Your task to perform on an android device: Check the news Image 0: 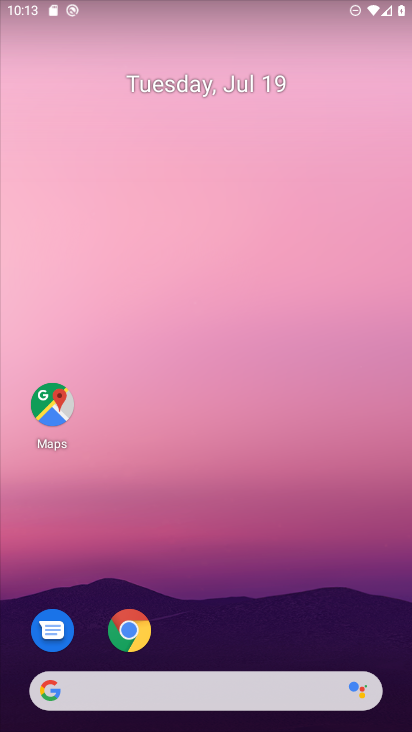
Step 0: click (91, 685)
Your task to perform on an android device: Check the news Image 1: 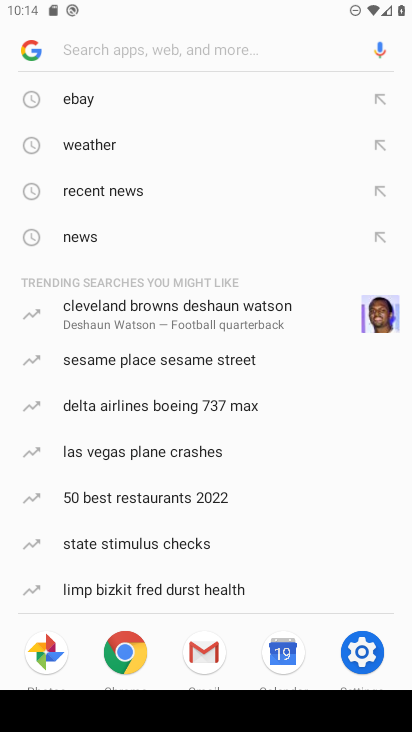
Step 1: click (79, 235)
Your task to perform on an android device: Check the news Image 2: 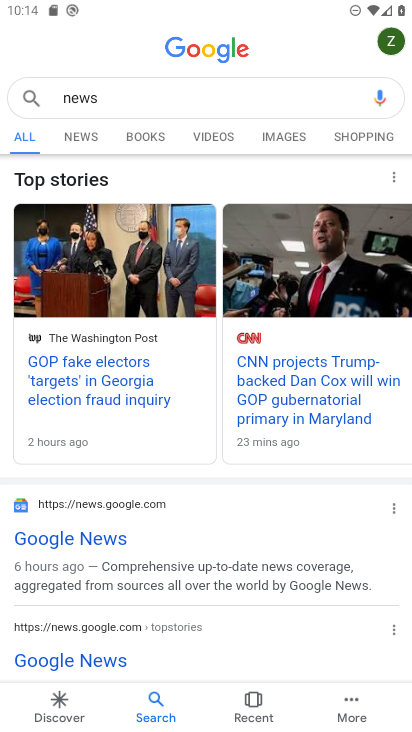
Step 2: task complete